Your task to perform on an android device: turn off data saver in the chrome app Image 0: 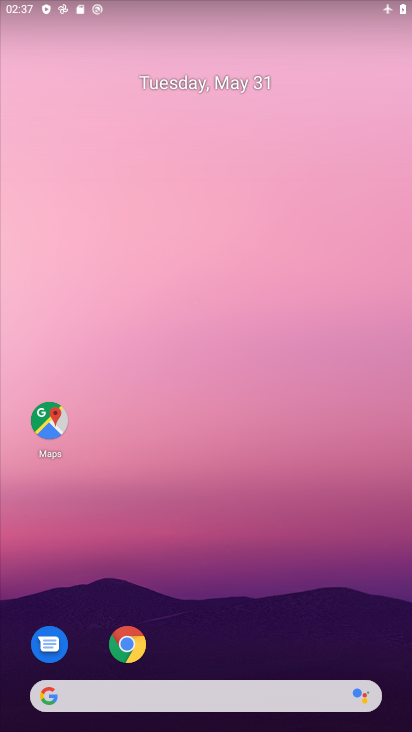
Step 0: click (123, 640)
Your task to perform on an android device: turn off data saver in the chrome app Image 1: 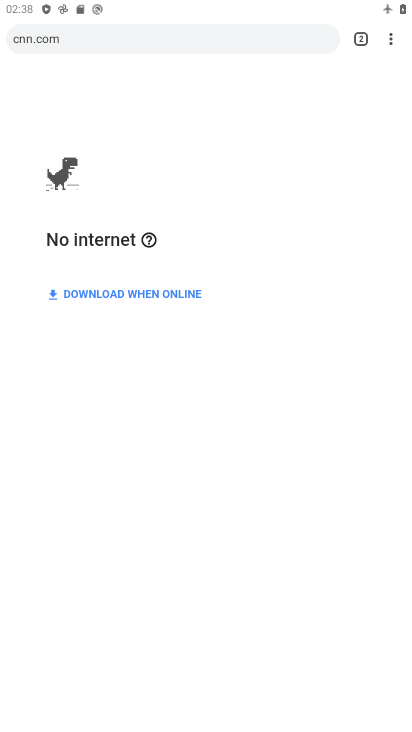
Step 1: drag from (393, 34) to (271, 425)
Your task to perform on an android device: turn off data saver in the chrome app Image 2: 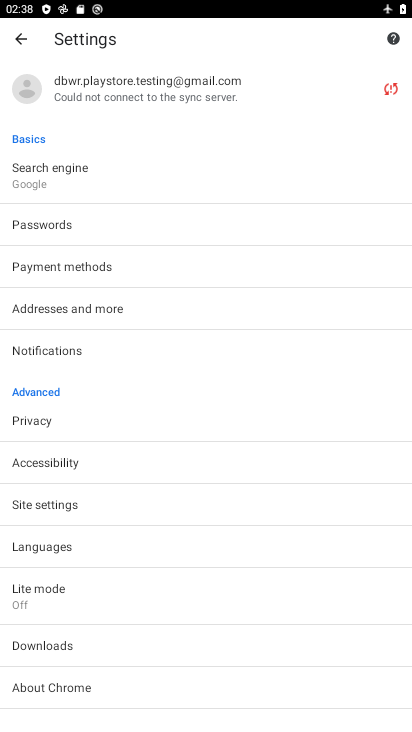
Step 2: drag from (259, 644) to (300, 239)
Your task to perform on an android device: turn off data saver in the chrome app Image 3: 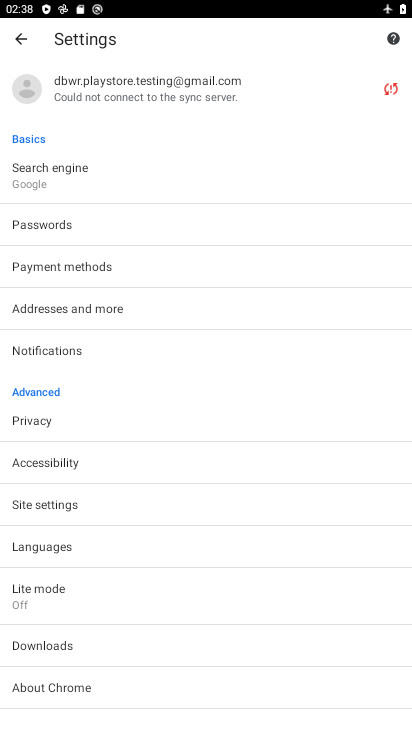
Step 3: click (26, 602)
Your task to perform on an android device: turn off data saver in the chrome app Image 4: 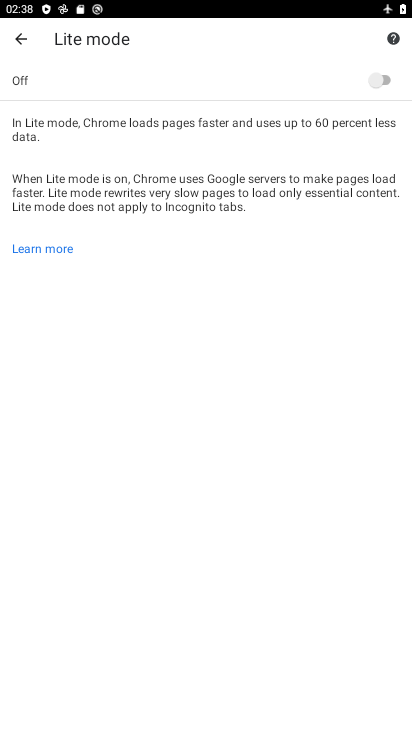
Step 4: task complete